Your task to perform on an android device: Is it going to rain this weekend? Image 0: 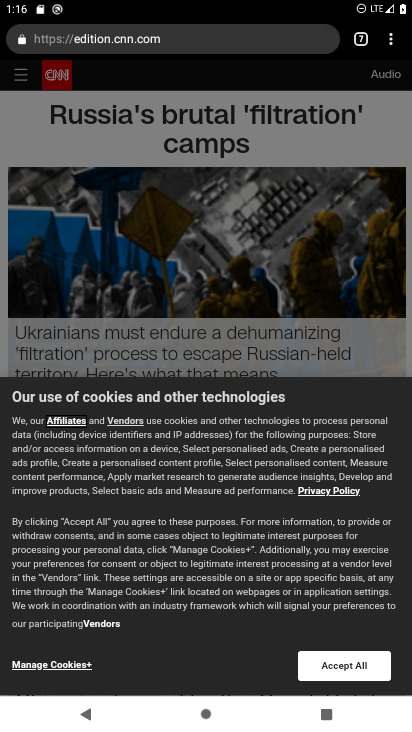
Step 0: press home button
Your task to perform on an android device: Is it going to rain this weekend? Image 1: 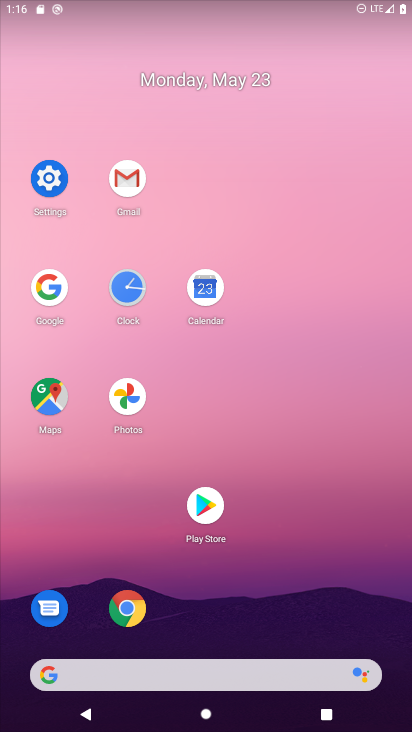
Step 1: click (67, 291)
Your task to perform on an android device: Is it going to rain this weekend? Image 2: 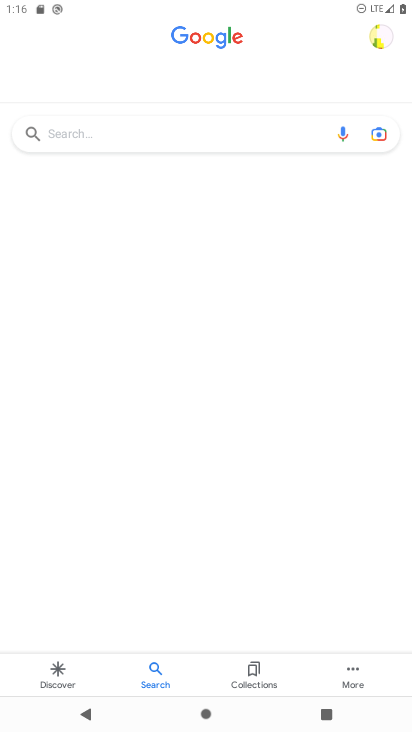
Step 2: click (189, 134)
Your task to perform on an android device: Is it going to rain this weekend? Image 3: 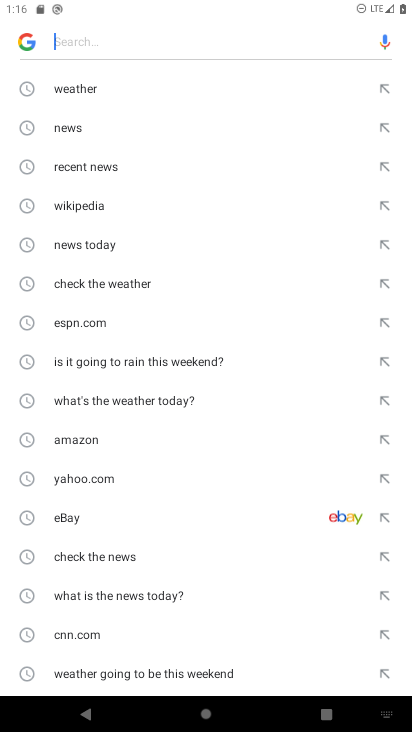
Step 3: click (115, 92)
Your task to perform on an android device: Is it going to rain this weekend? Image 4: 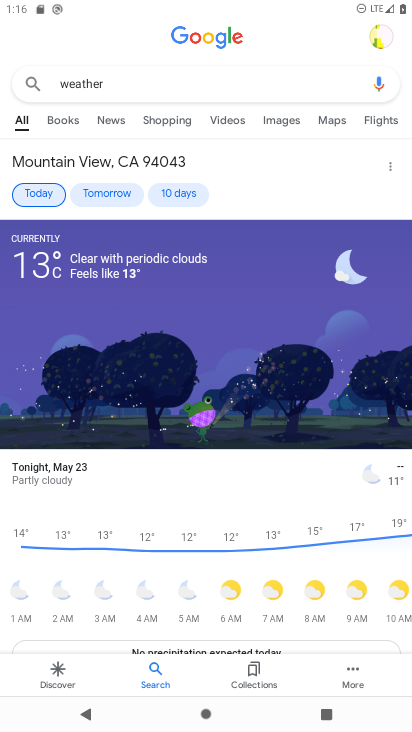
Step 4: click (181, 192)
Your task to perform on an android device: Is it going to rain this weekend? Image 5: 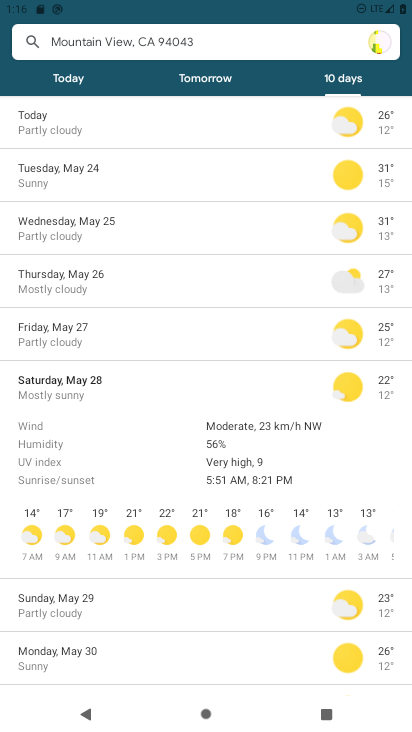
Step 5: task complete